Your task to perform on an android device: Open settings Image 0: 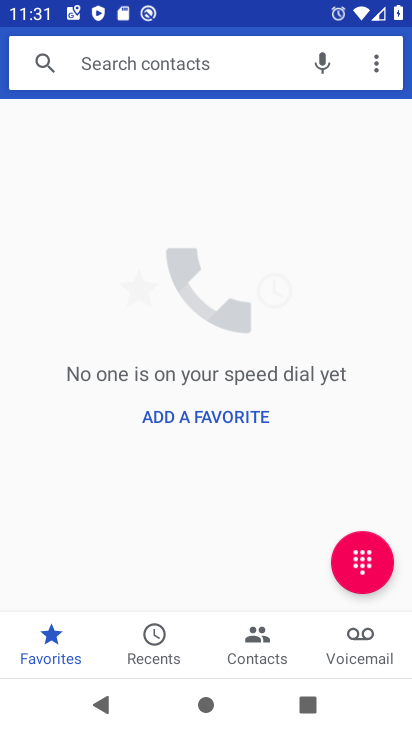
Step 0: press home button
Your task to perform on an android device: Open settings Image 1: 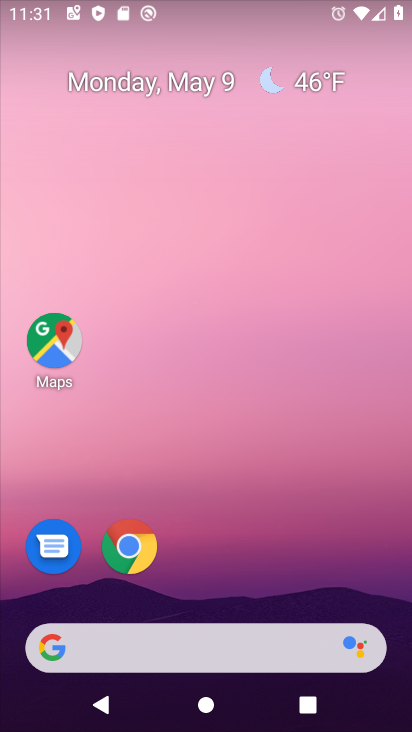
Step 1: drag from (330, 585) to (356, 0)
Your task to perform on an android device: Open settings Image 2: 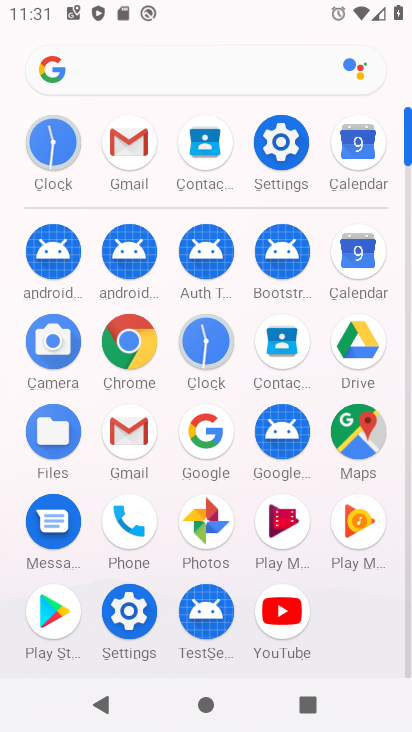
Step 2: click (281, 152)
Your task to perform on an android device: Open settings Image 3: 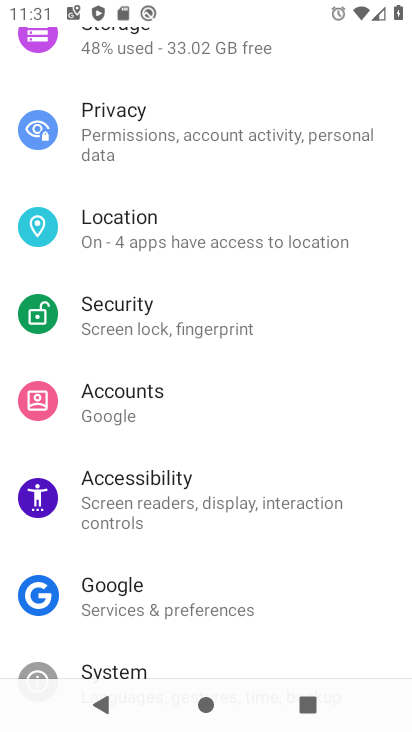
Step 3: task complete